Your task to perform on an android device: Open the calendar app, open the side menu, and click the "Day" option Image 0: 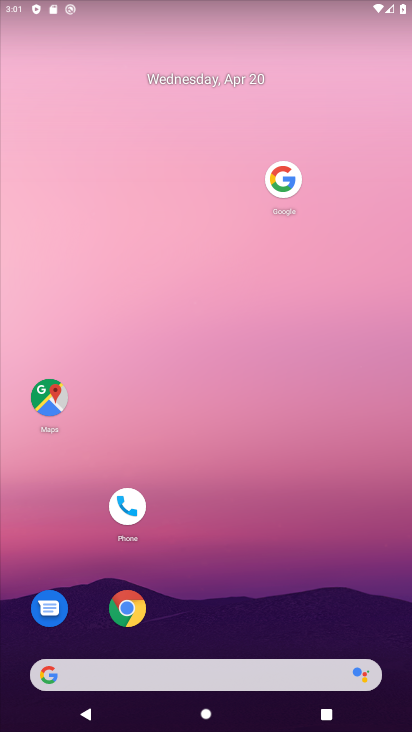
Step 0: drag from (327, 622) to (335, 129)
Your task to perform on an android device: Open the calendar app, open the side menu, and click the "Day" option Image 1: 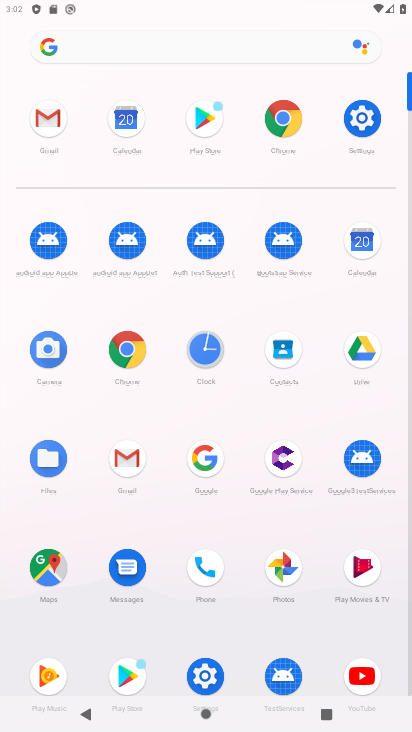
Step 1: click (367, 234)
Your task to perform on an android device: Open the calendar app, open the side menu, and click the "Day" option Image 2: 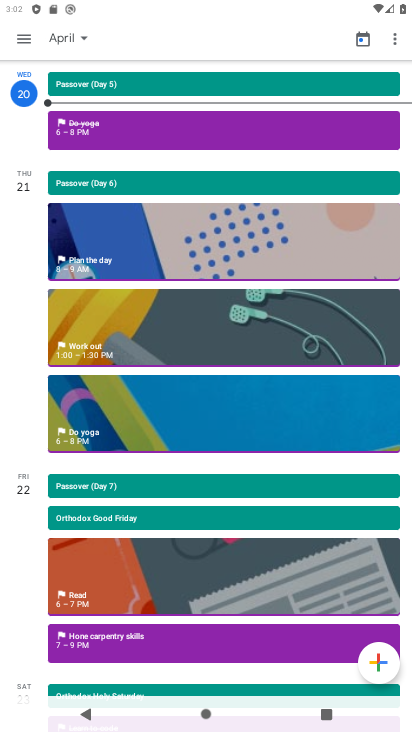
Step 2: click (19, 44)
Your task to perform on an android device: Open the calendar app, open the side menu, and click the "Day" option Image 3: 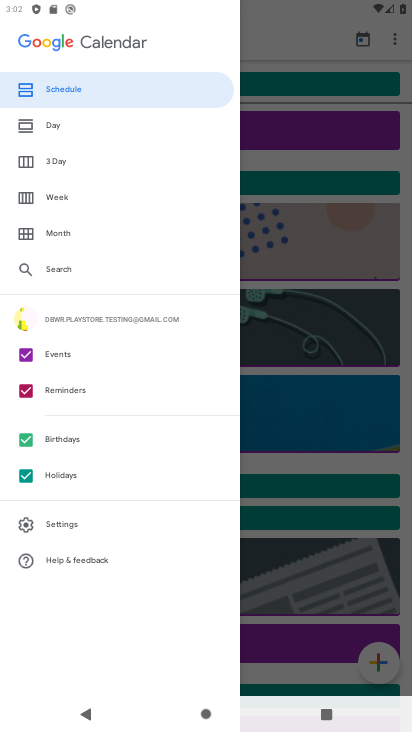
Step 3: click (70, 132)
Your task to perform on an android device: Open the calendar app, open the side menu, and click the "Day" option Image 4: 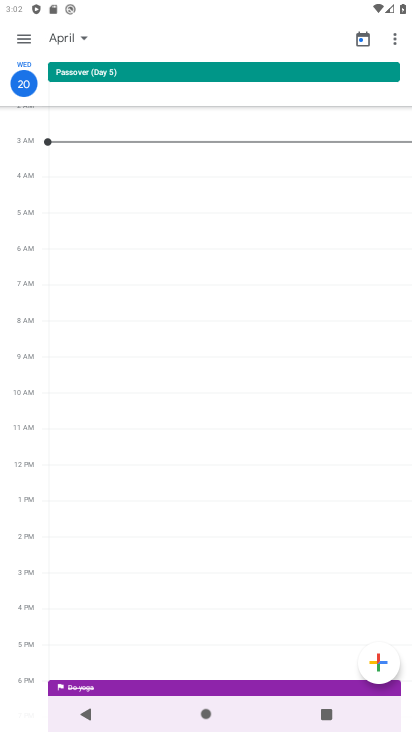
Step 4: task complete